Your task to perform on an android device: Show the shopping cart on costco. Search for usb-c on costco, select the first entry, add it to the cart, then select checkout. Image 0: 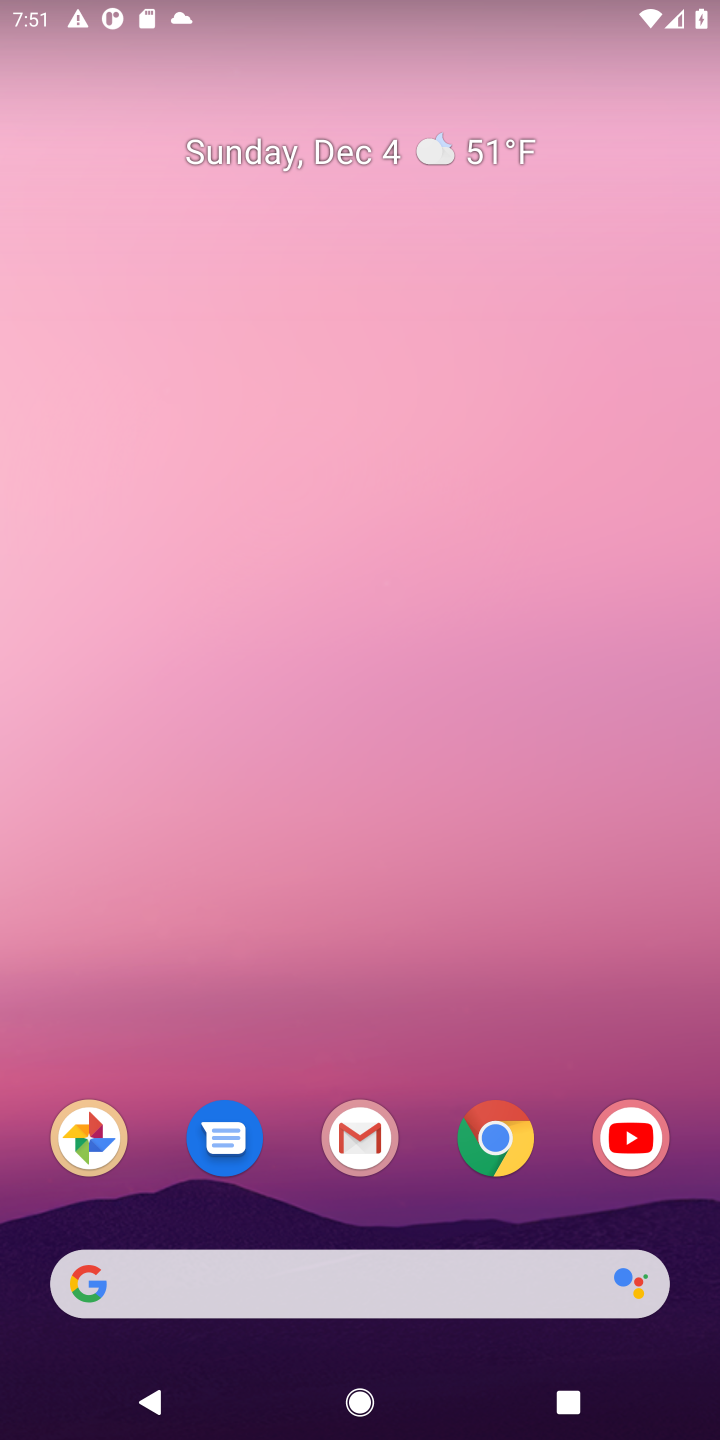
Step 0: click (493, 1138)
Your task to perform on an android device: Show the shopping cart on costco. Search for usb-c on costco, select the first entry, add it to the cart, then select checkout. Image 1: 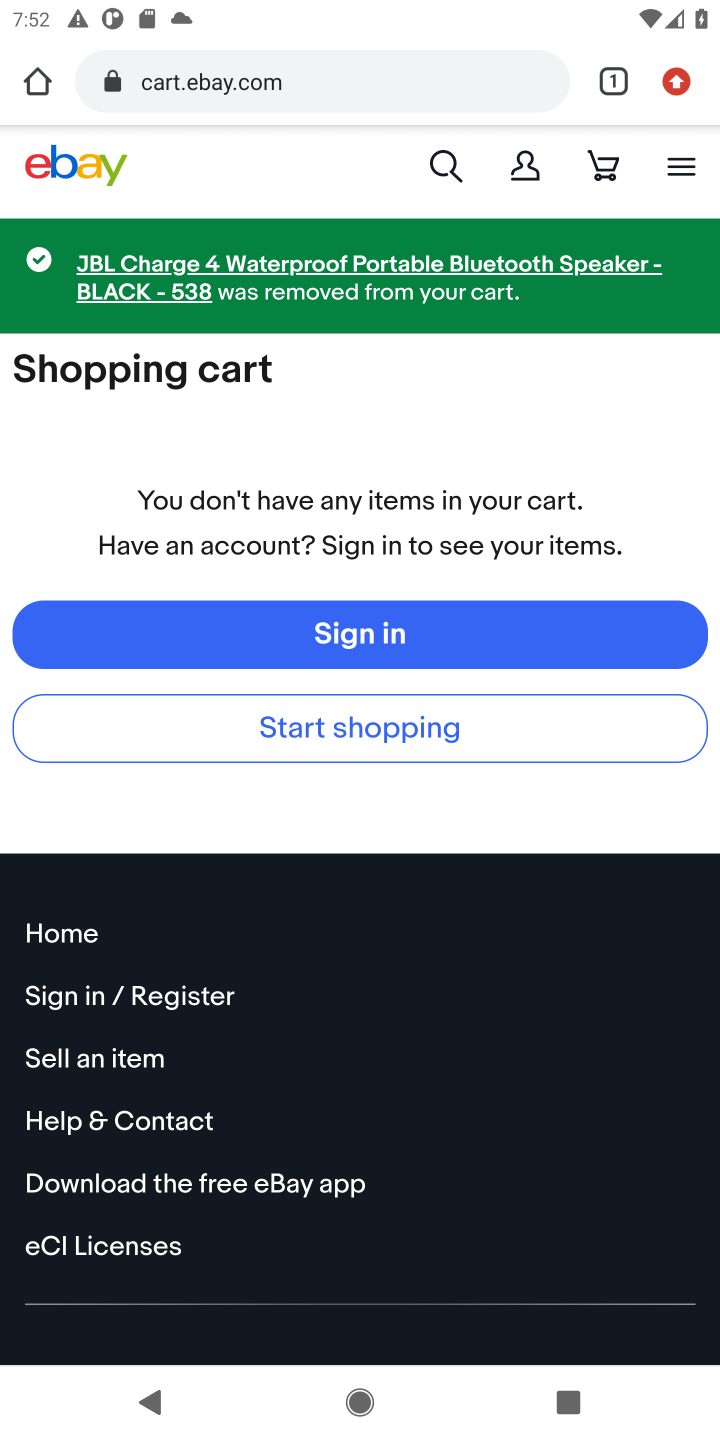
Step 1: click (534, 75)
Your task to perform on an android device: Show the shopping cart on costco. Search for usb-c on costco, select the first entry, add it to the cart, then select checkout. Image 2: 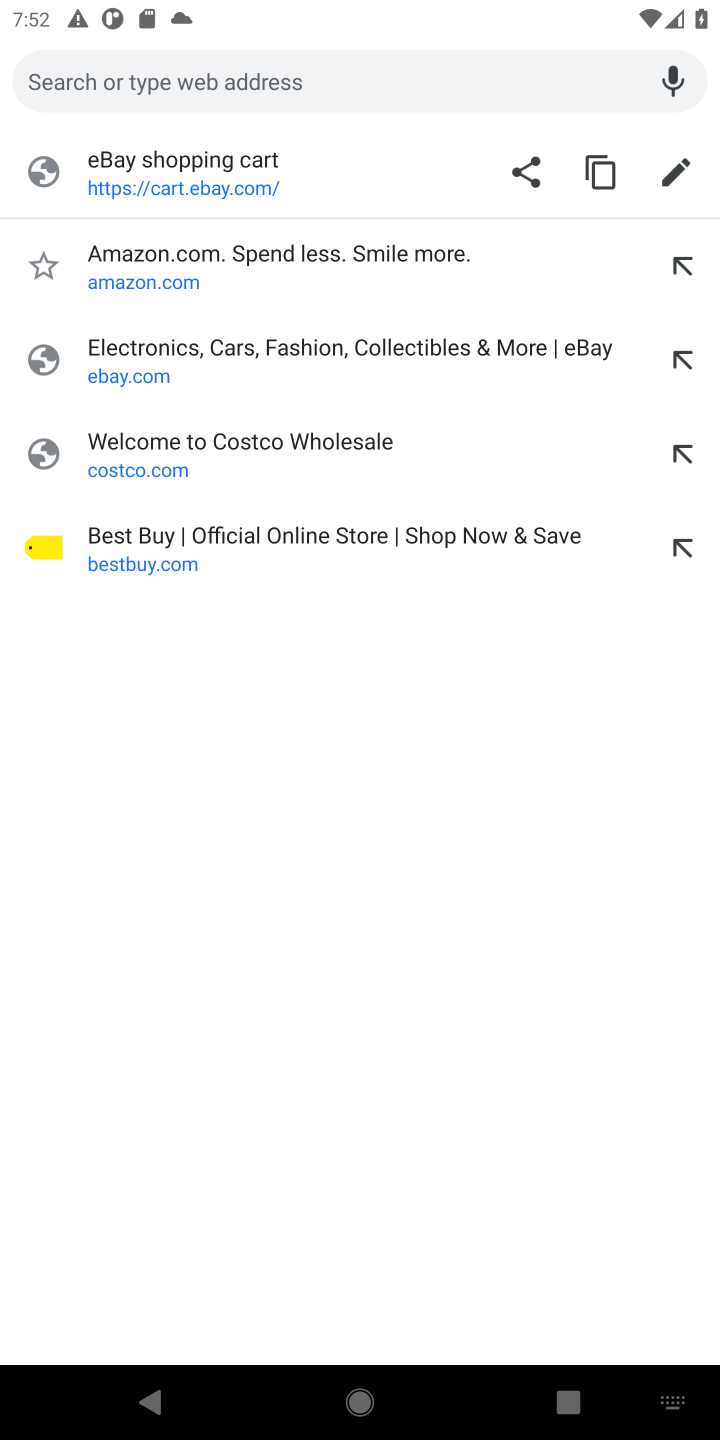
Step 2: click (209, 433)
Your task to perform on an android device: Show the shopping cart on costco. Search for usb-c on costco, select the first entry, add it to the cart, then select checkout. Image 3: 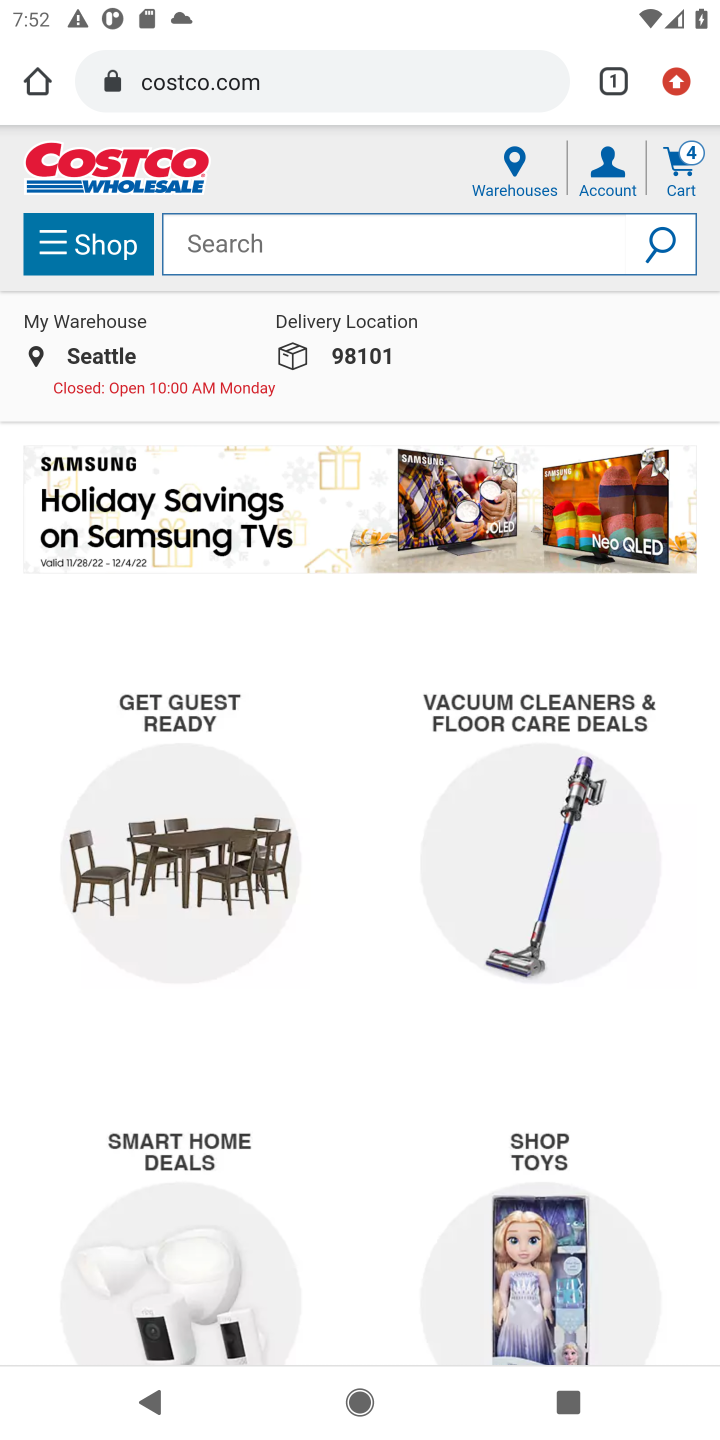
Step 3: click (673, 165)
Your task to perform on an android device: Show the shopping cart on costco. Search for usb-c on costco, select the first entry, add it to the cart, then select checkout. Image 4: 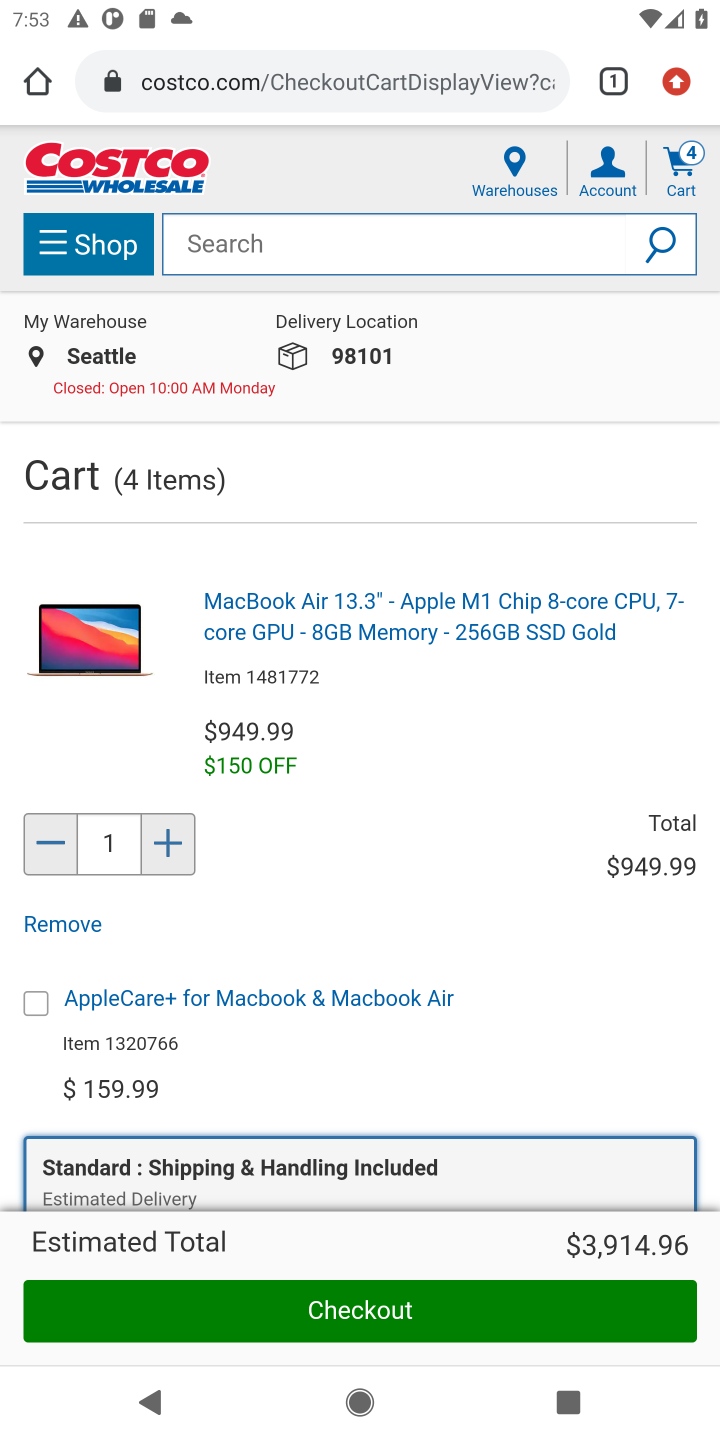
Step 4: click (581, 254)
Your task to perform on an android device: Show the shopping cart on costco. Search for usb-c on costco, select the first entry, add it to the cart, then select checkout. Image 5: 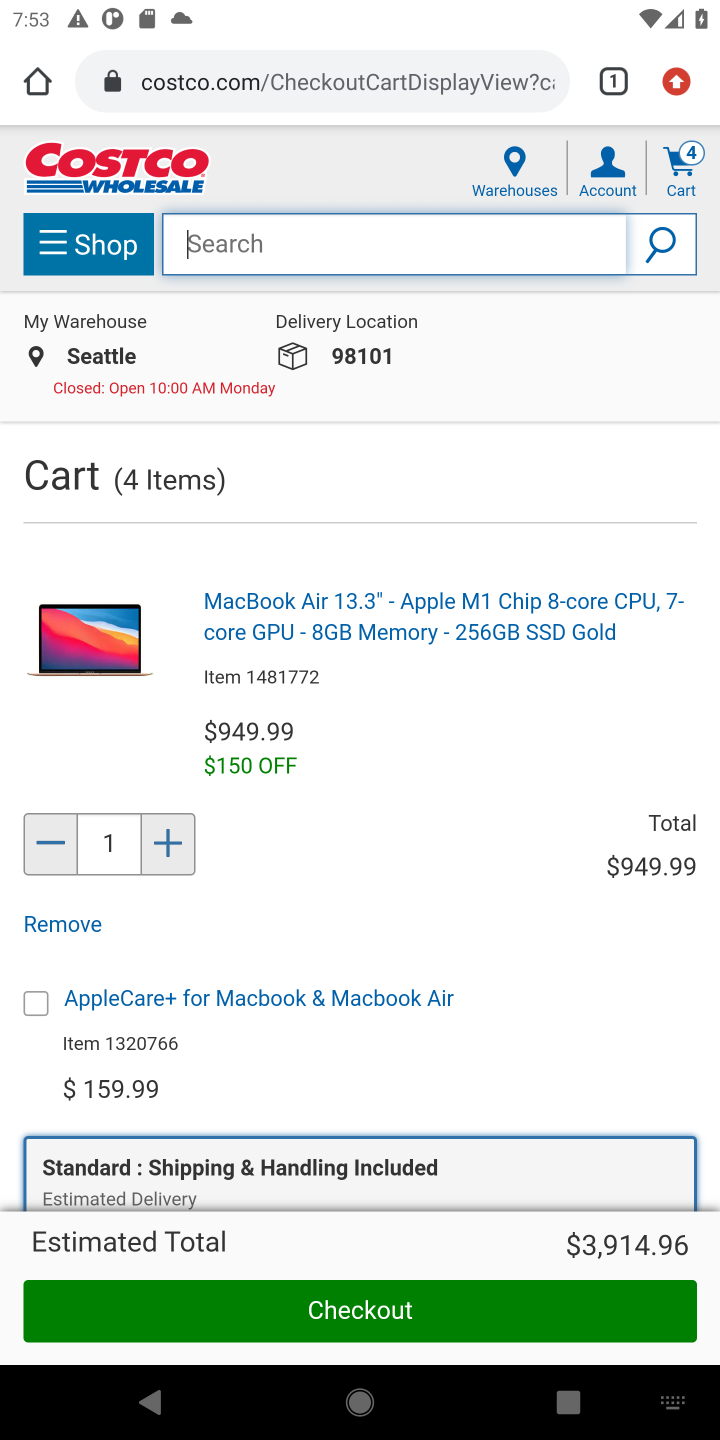
Step 5: type " usb-c"
Your task to perform on an android device: Show the shopping cart on costco. Search for usb-c on costco, select the first entry, add it to the cart, then select checkout. Image 6: 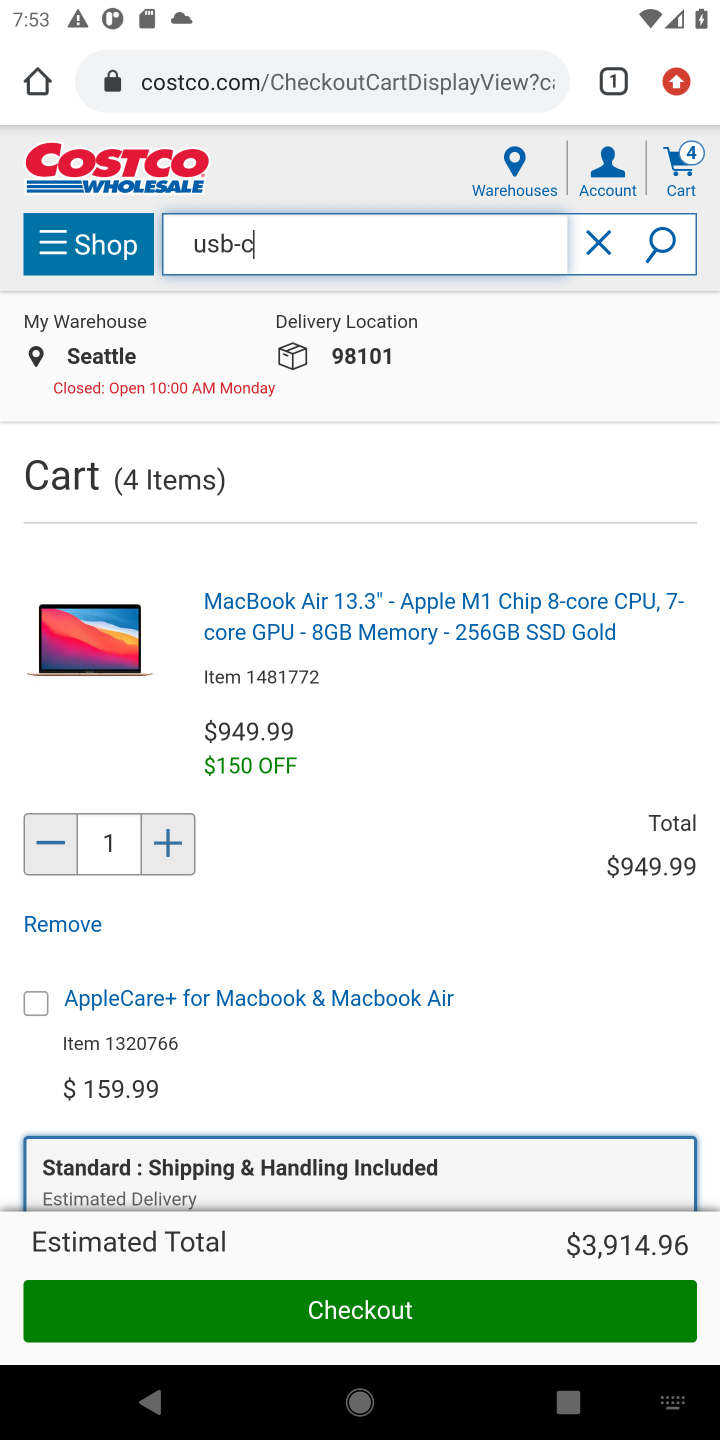
Step 6: press enter
Your task to perform on an android device: Show the shopping cart on costco. Search for usb-c on costco, select the first entry, add it to the cart, then select checkout. Image 7: 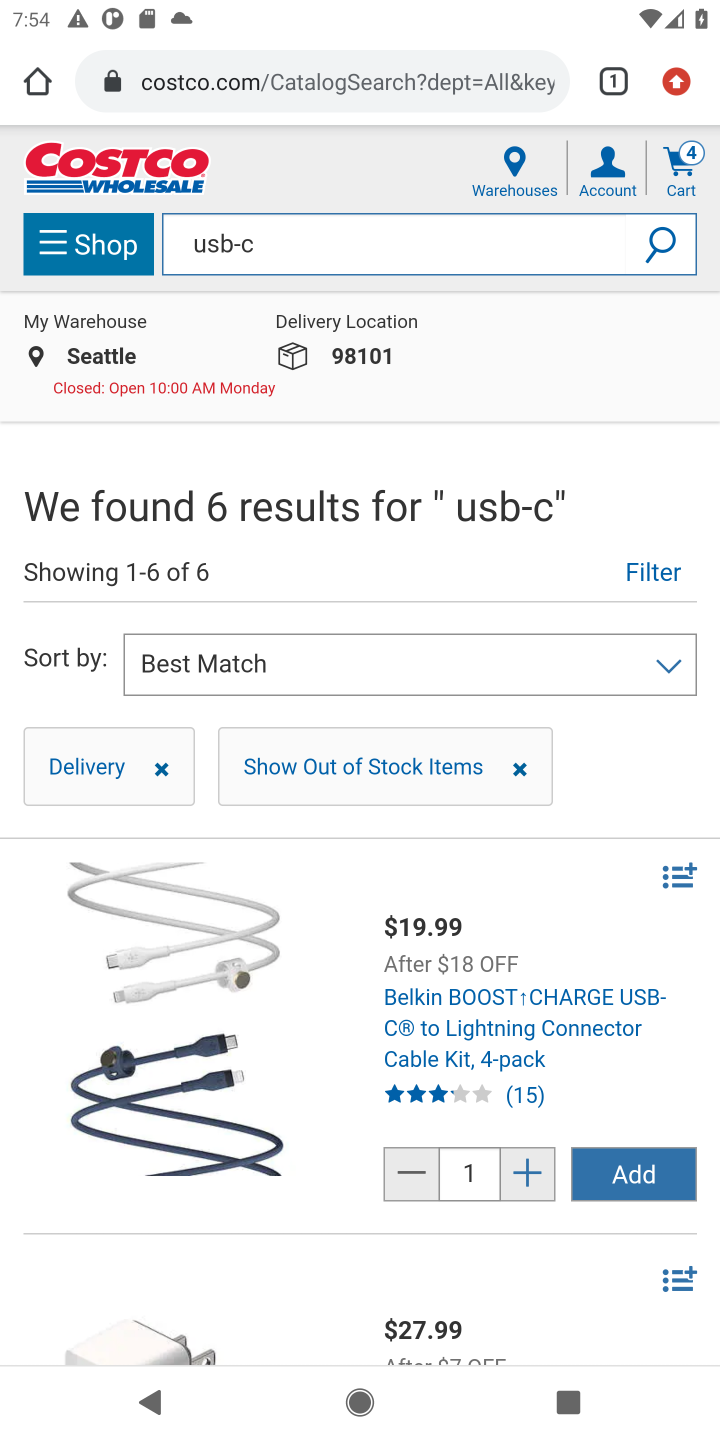
Step 7: click (248, 1093)
Your task to perform on an android device: Show the shopping cart on costco. Search for usb-c on costco, select the first entry, add it to the cart, then select checkout. Image 8: 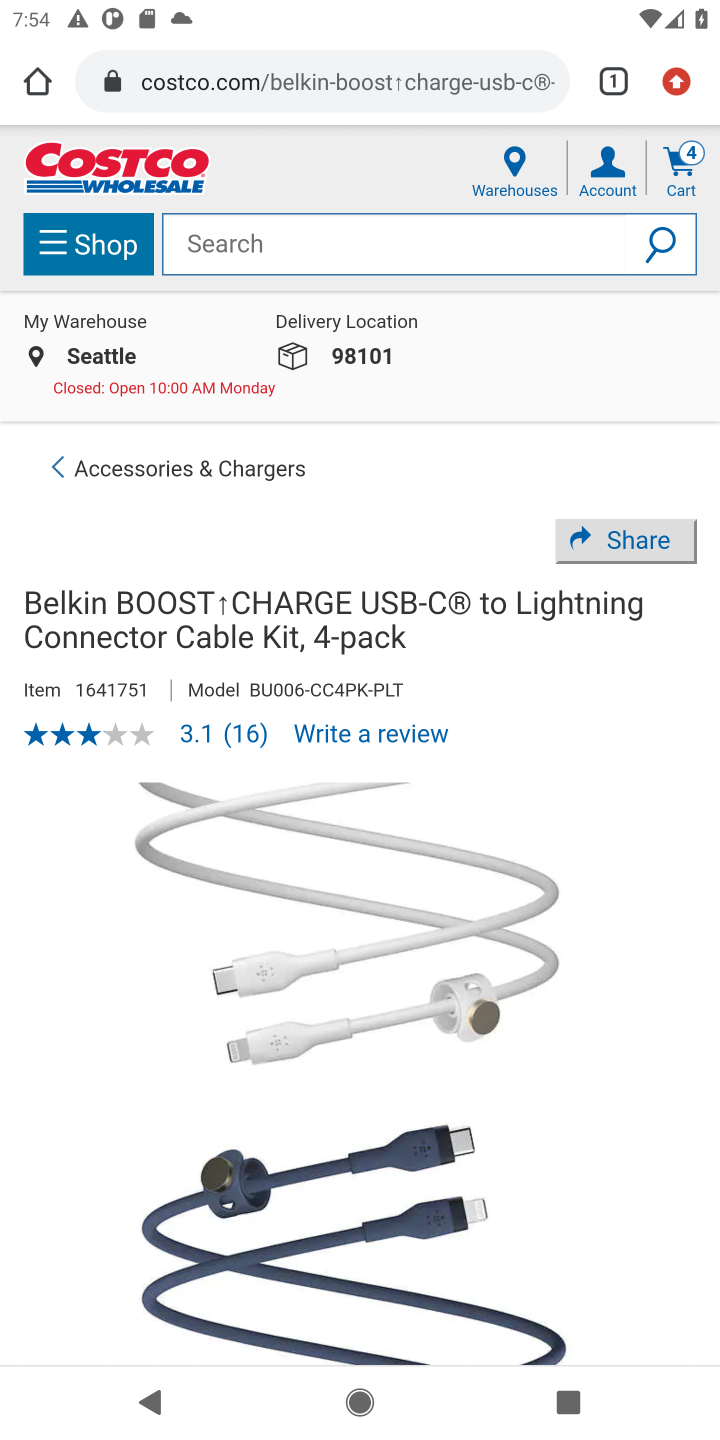
Step 8: drag from (588, 1071) to (569, 207)
Your task to perform on an android device: Show the shopping cart on costco. Search for usb-c on costco, select the first entry, add it to the cart, then select checkout. Image 9: 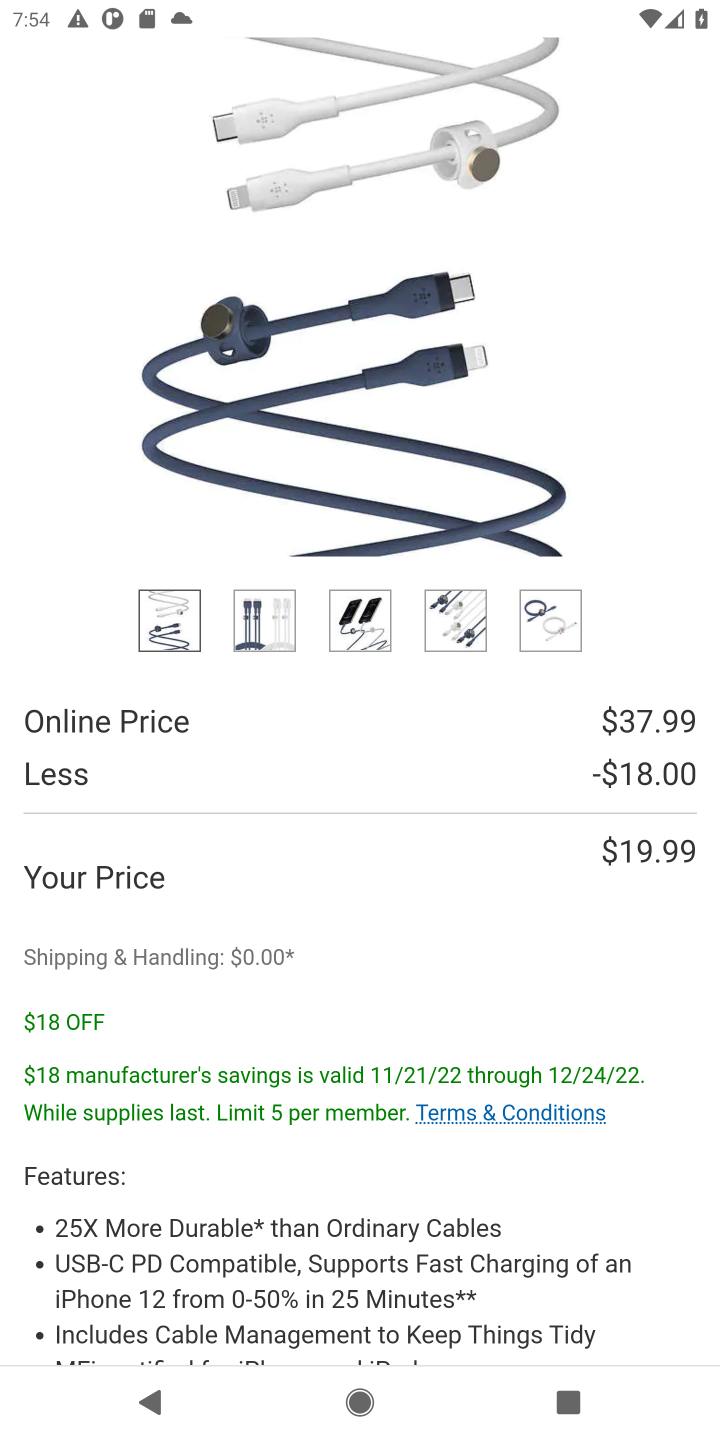
Step 9: drag from (584, 899) to (537, 288)
Your task to perform on an android device: Show the shopping cart on costco. Search for usb-c on costco, select the first entry, add it to the cart, then select checkout. Image 10: 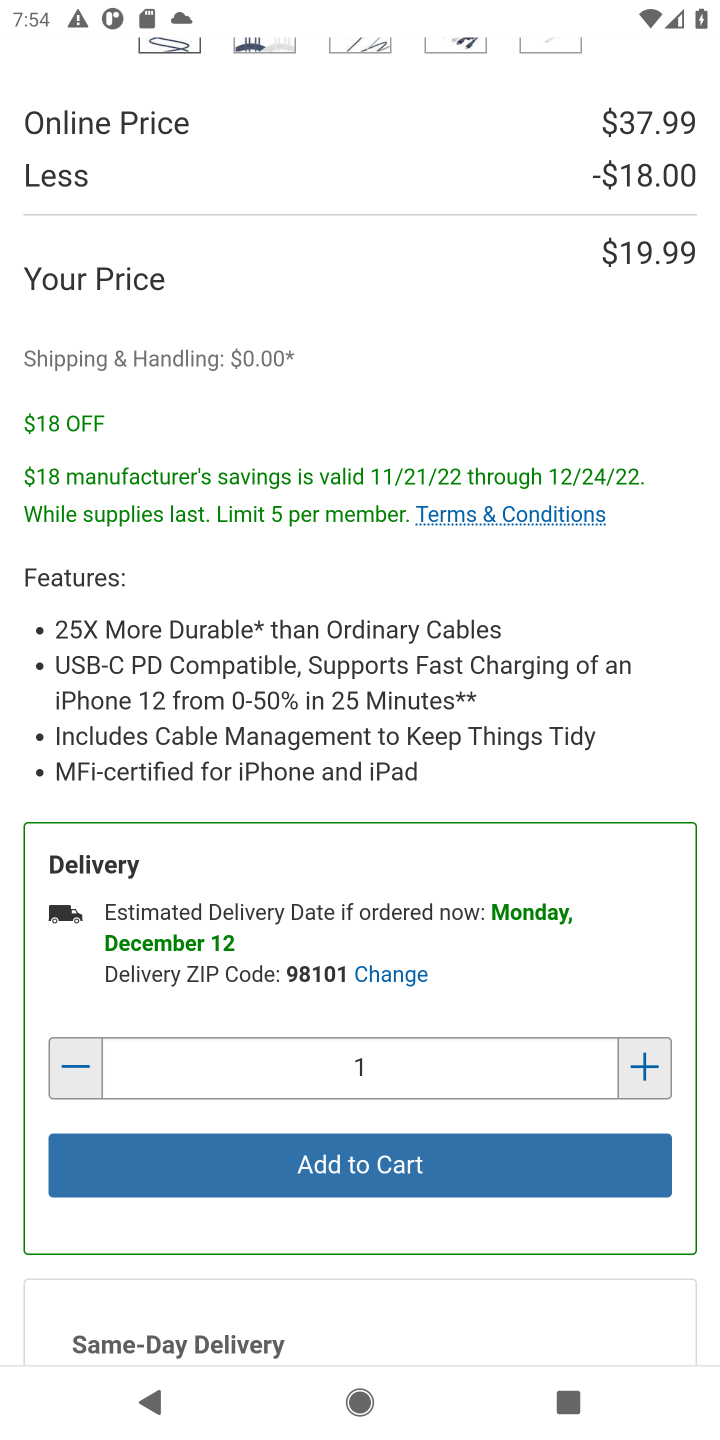
Step 10: click (390, 1169)
Your task to perform on an android device: Show the shopping cart on costco. Search for usb-c on costco, select the first entry, add it to the cart, then select checkout. Image 11: 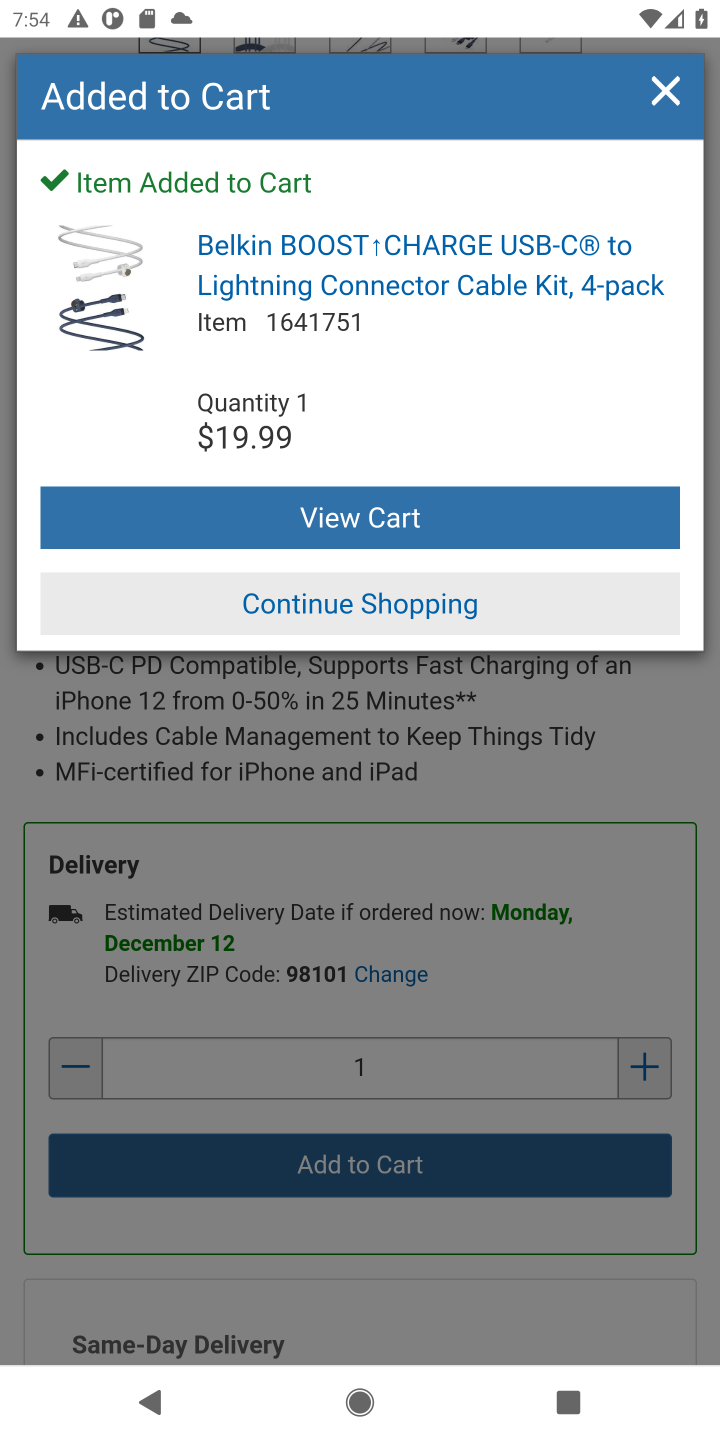
Step 11: click (383, 513)
Your task to perform on an android device: Show the shopping cart on costco. Search for usb-c on costco, select the first entry, add it to the cart, then select checkout. Image 12: 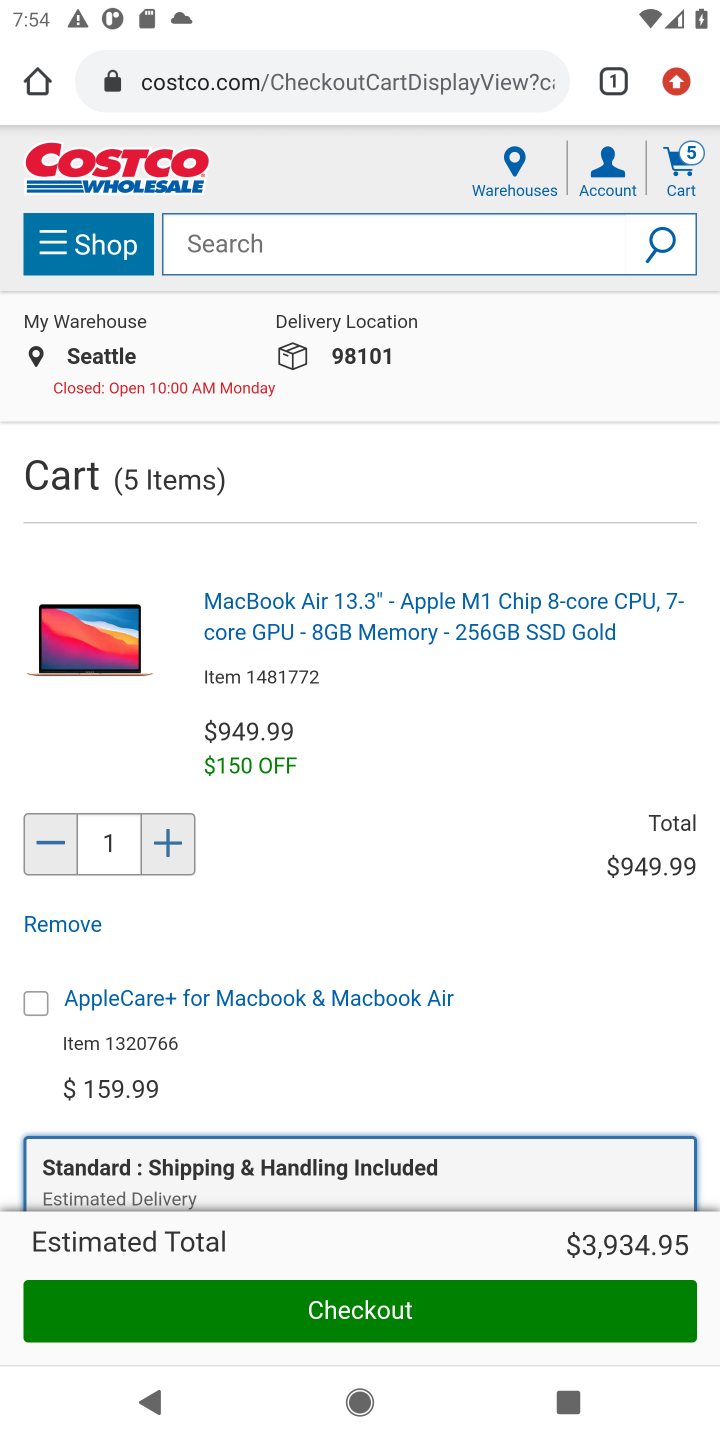
Step 12: click (354, 1309)
Your task to perform on an android device: Show the shopping cart on costco. Search for usb-c on costco, select the first entry, add it to the cart, then select checkout. Image 13: 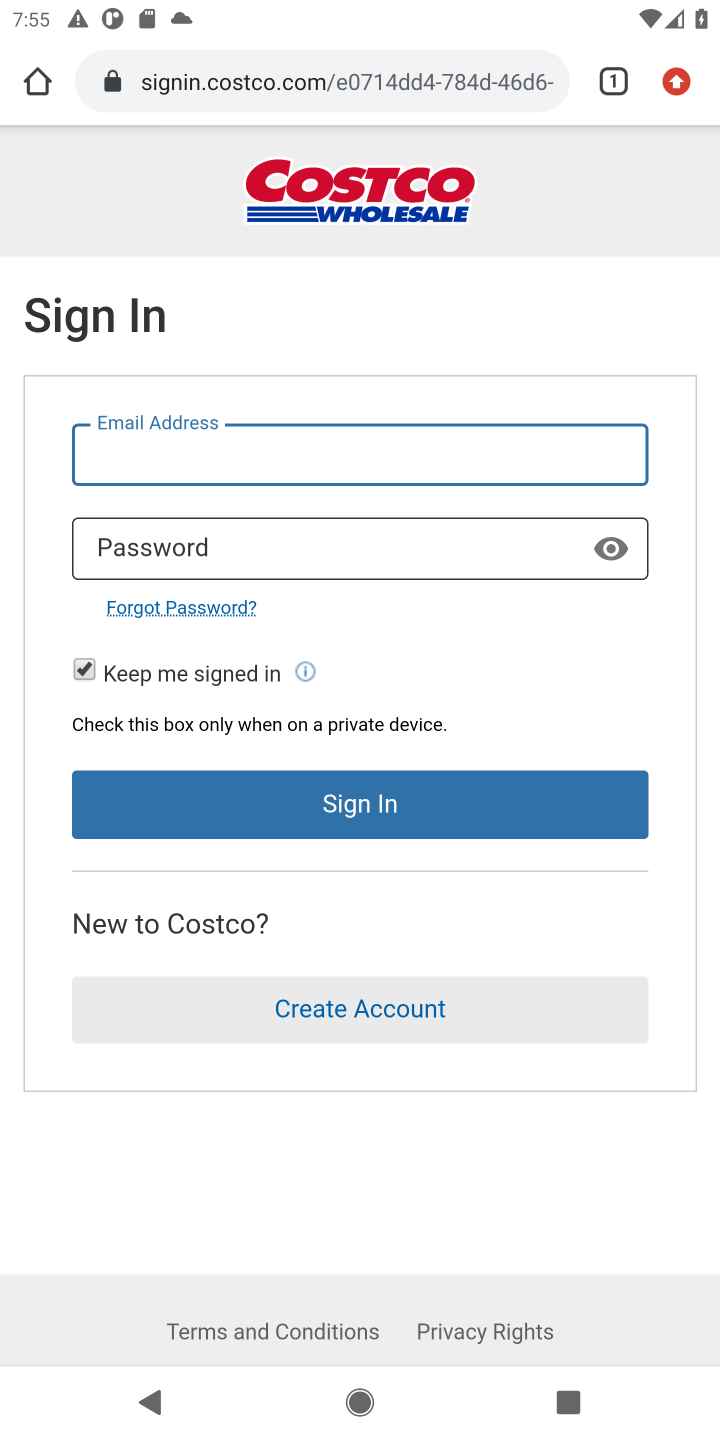
Step 13: task complete